Your task to perform on an android device: check data usage Image 0: 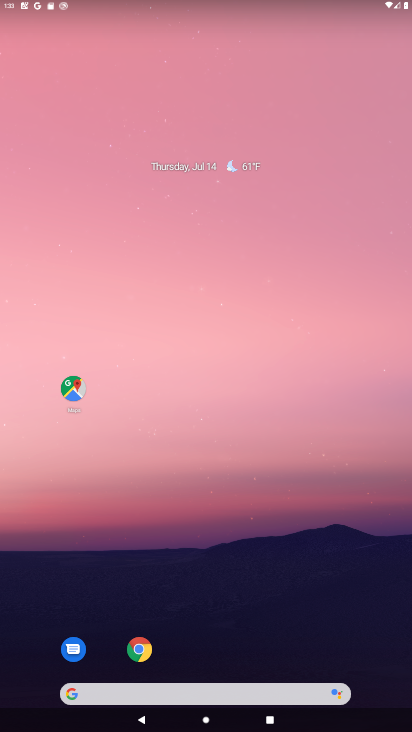
Step 0: drag from (245, 701) to (185, 1)
Your task to perform on an android device: check data usage Image 1: 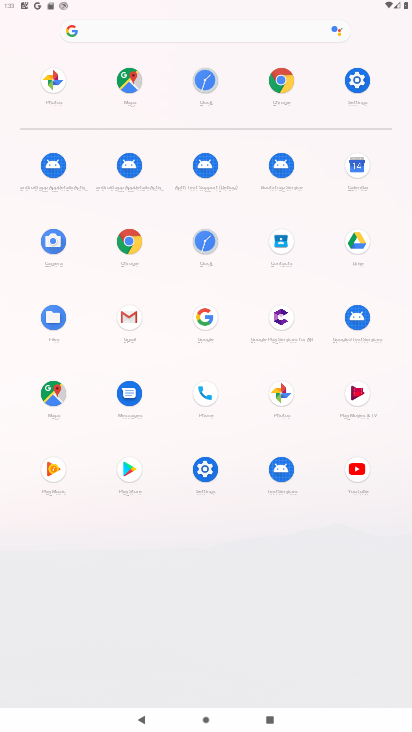
Step 1: click (358, 78)
Your task to perform on an android device: check data usage Image 2: 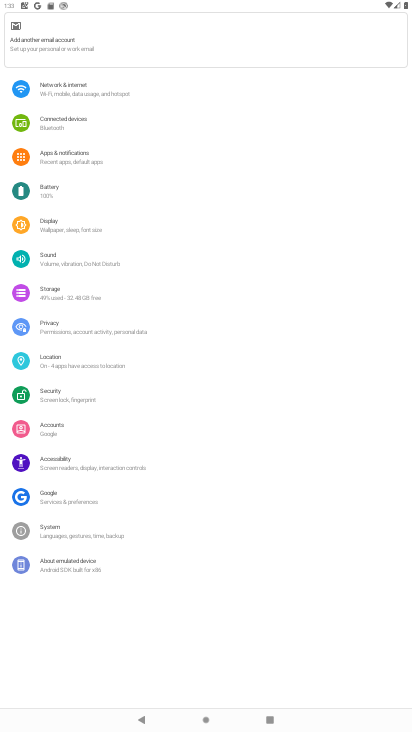
Step 2: click (58, 89)
Your task to perform on an android device: check data usage Image 3: 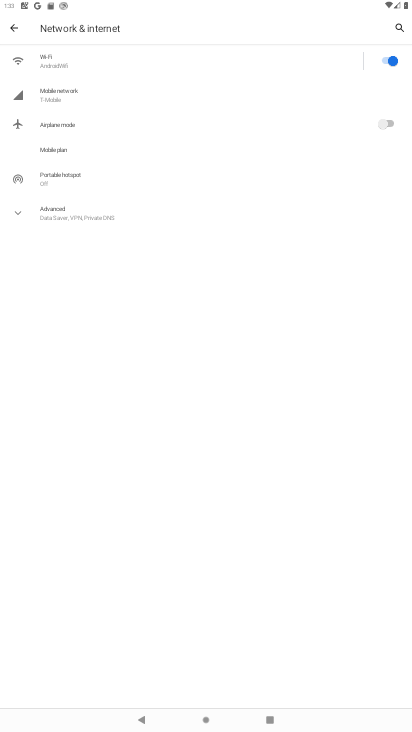
Step 3: click (80, 96)
Your task to perform on an android device: check data usage Image 4: 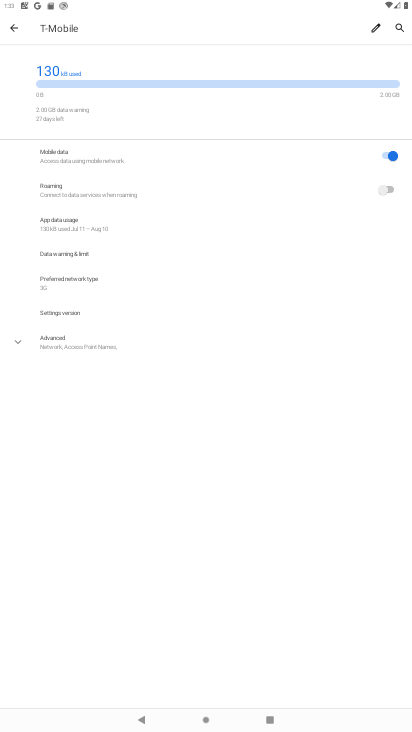
Step 4: task complete